Your task to perform on an android device: Open my contact list Image 0: 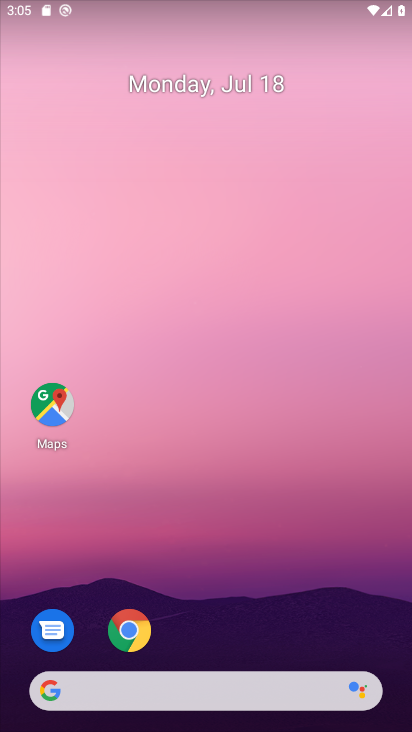
Step 0: drag from (323, 633) to (286, 80)
Your task to perform on an android device: Open my contact list Image 1: 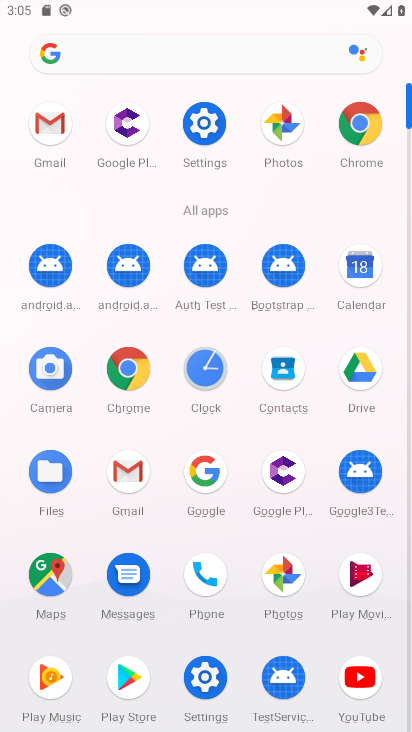
Step 1: click (283, 373)
Your task to perform on an android device: Open my contact list Image 2: 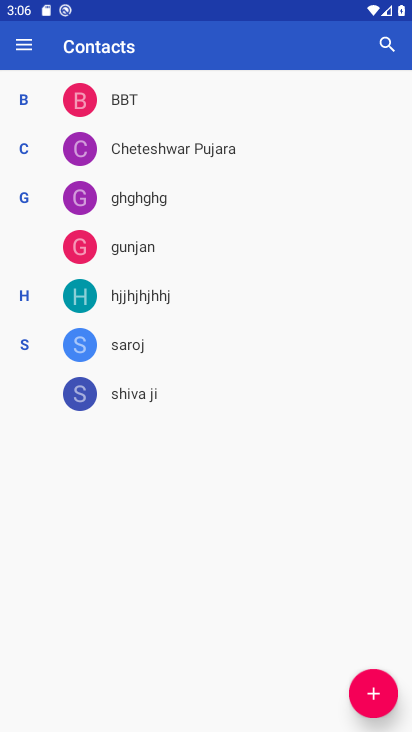
Step 2: task complete